Your task to perform on an android device: Go to ESPN.com Image 0: 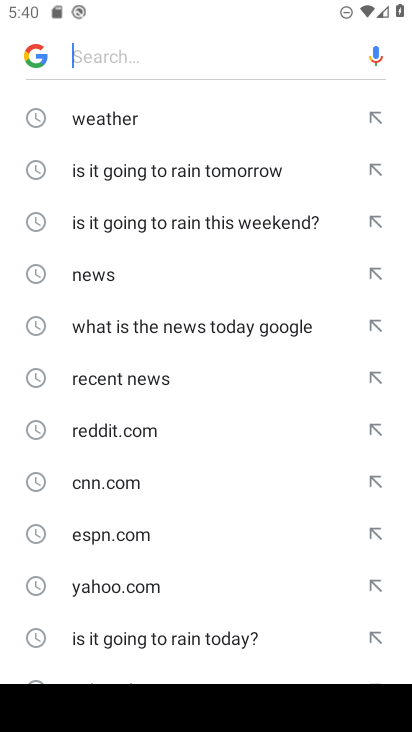
Step 0: click (111, 534)
Your task to perform on an android device: Go to ESPN.com Image 1: 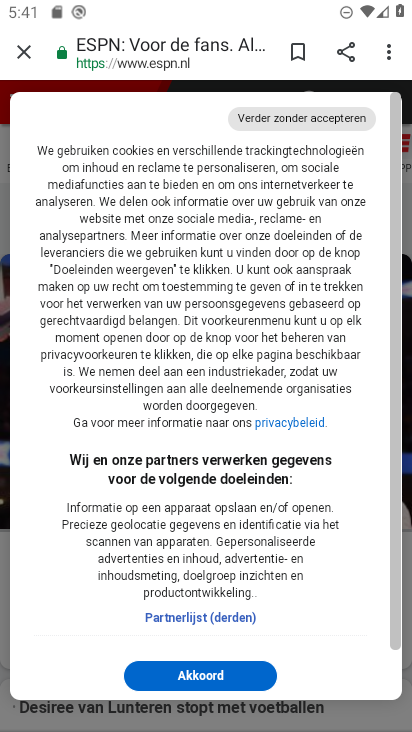
Step 1: click (241, 710)
Your task to perform on an android device: Go to ESPN.com Image 2: 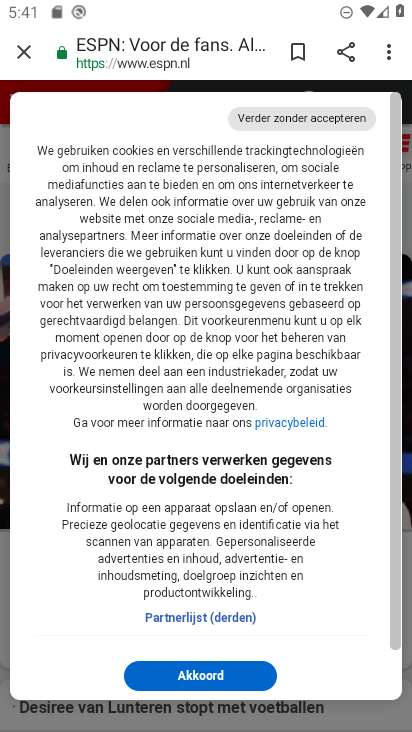
Step 2: task complete